Your task to perform on an android device: Open Youtube and go to "Your channel" Image 0: 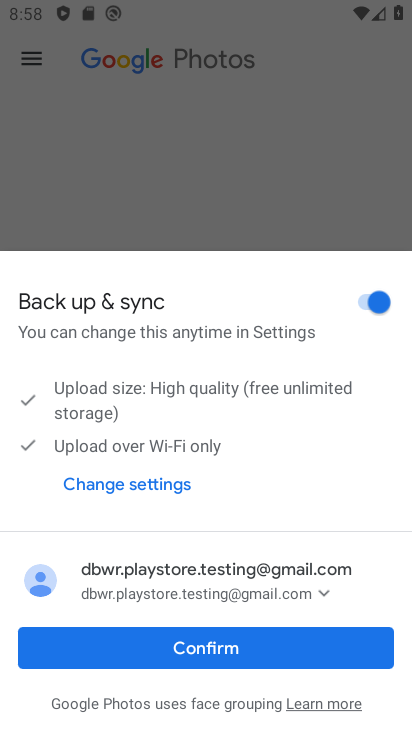
Step 0: press home button
Your task to perform on an android device: Open Youtube and go to "Your channel" Image 1: 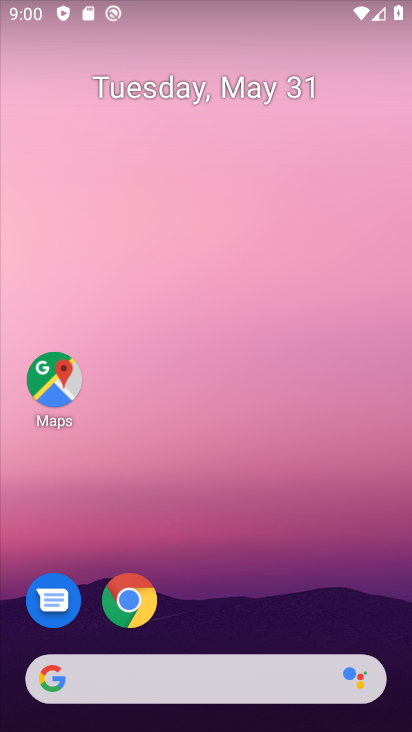
Step 1: drag from (331, 706) to (407, 80)
Your task to perform on an android device: Open Youtube and go to "Your channel" Image 2: 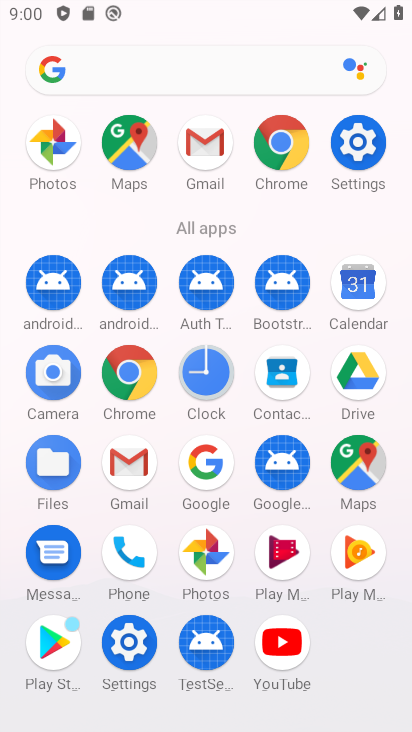
Step 2: click (278, 628)
Your task to perform on an android device: Open Youtube and go to "Your channel" Image 3: 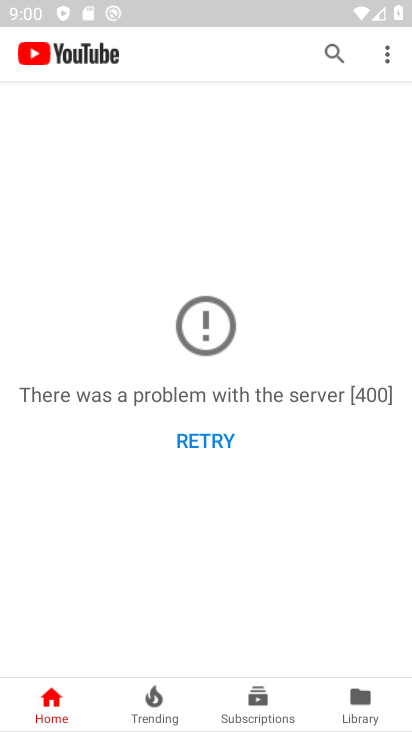
Step 3: click (397, 66)
Your task to perform on an android device: Open Youtube and go to "Your channel" Image 4: 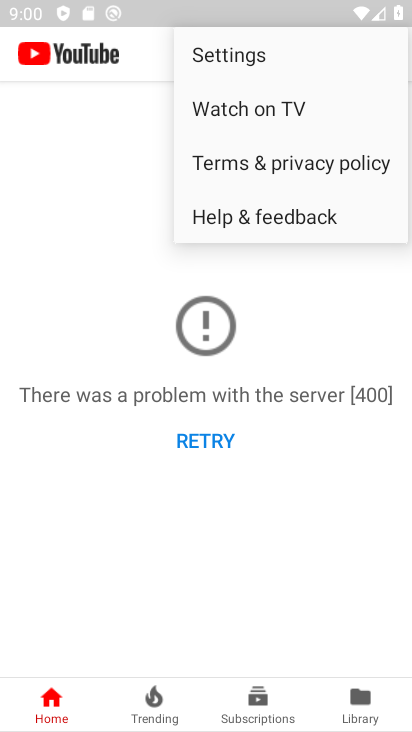
Step 4: click (263, 64)
Your task to perform on an android device: Open Youtube and go to "Your channel" Image 5: 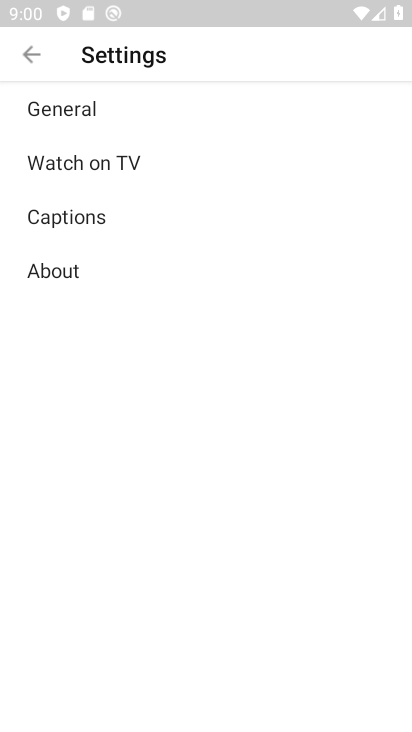
Step 5: click (83, 106)
Your task to perform on an android device: Open Youtube and go to "Your channel" Image 6: 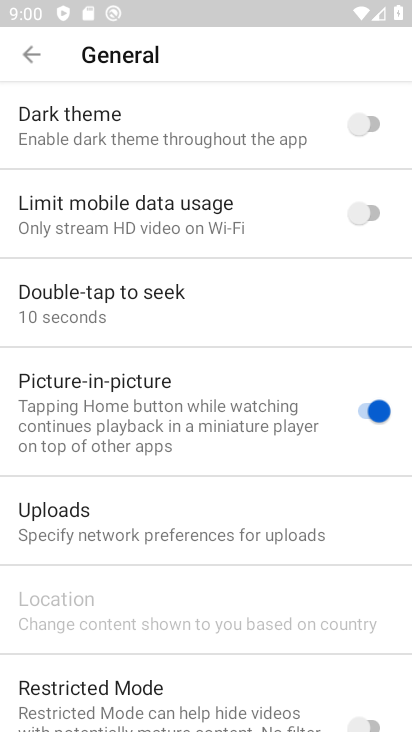
Step 6: task complete